Your task to perform on an android device: turn on sleep mode Image 0: 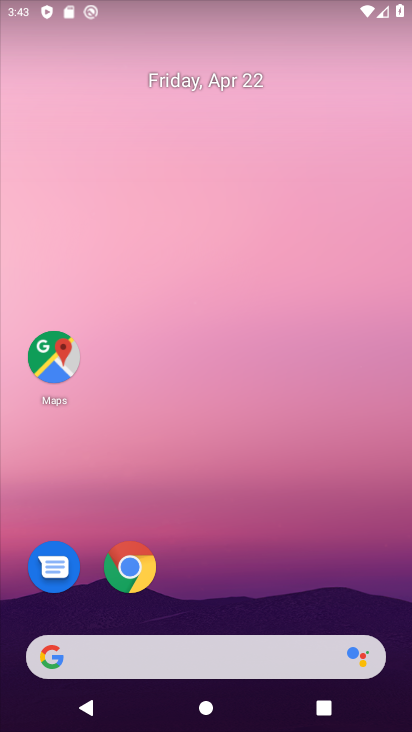
Step 0: drag from (215, 581) to (197, 328)
Your task to perform on an android device: turn on sleep mode Image 1: 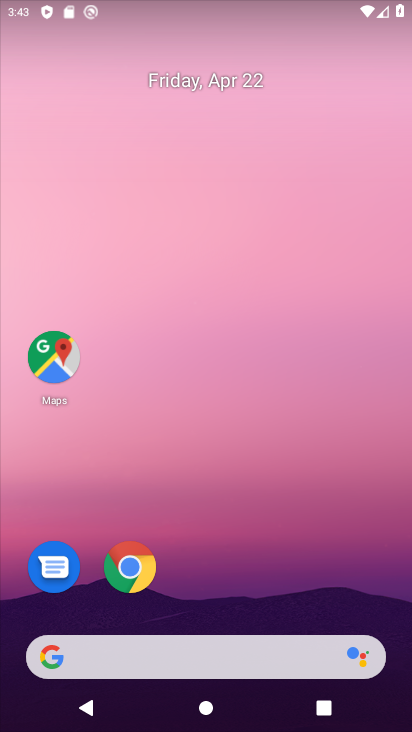
Step 1: drag from (245, 598) to (224, 463)
Your task to perform on an android device: turn on sleep mode Image 2: 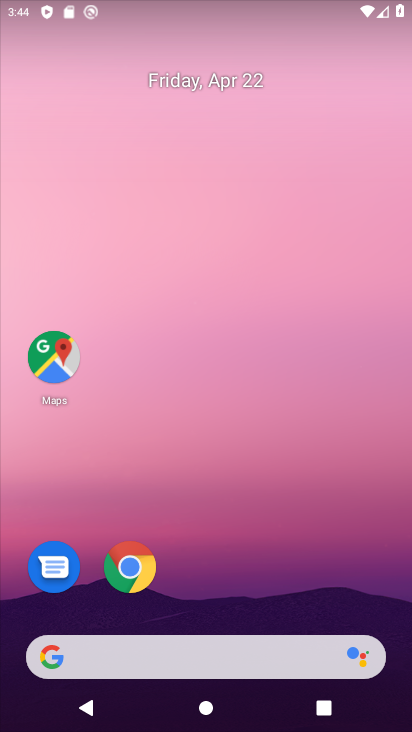
Step 2: drag from (250, 584) to (235, 354)
Your task to perform on an android device: turn on sleep mode Image 3: 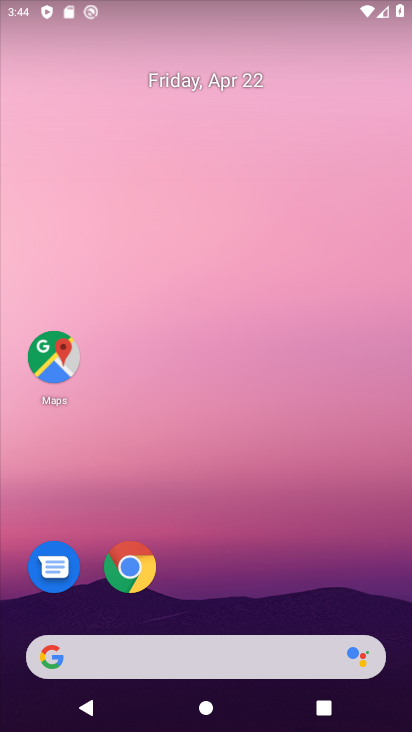
Step 3: drag from (272, 622) to (237, 277)
Your task to perform on an android device: turn on sleep mode Image 4: 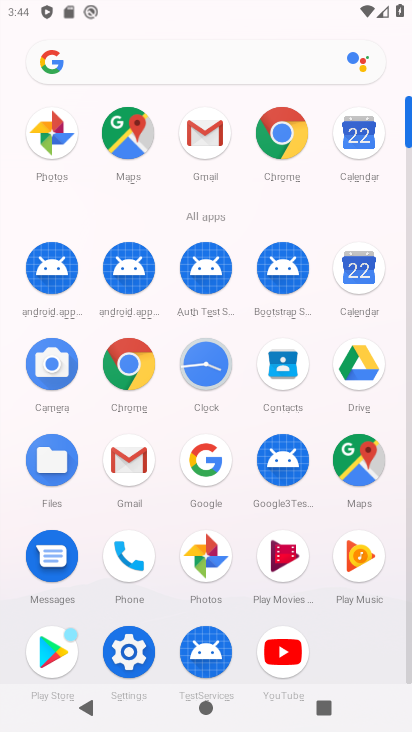
Step 4: click (128, 661)
Your task to perform on an android device: turn on sleep mode Image 5: 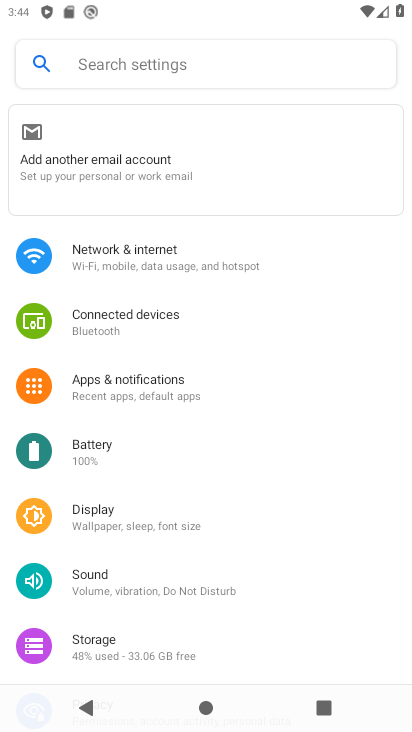
Step 5: click (162, 534)
Your task to perform on an android device: turn on sleep mode Image 6: 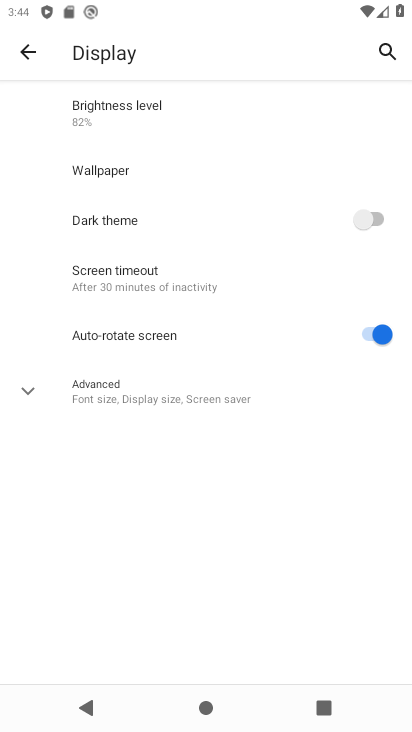
Step 6: click (162, 534)
Your task to perform on an android device: turn on sleep mode Image 7: 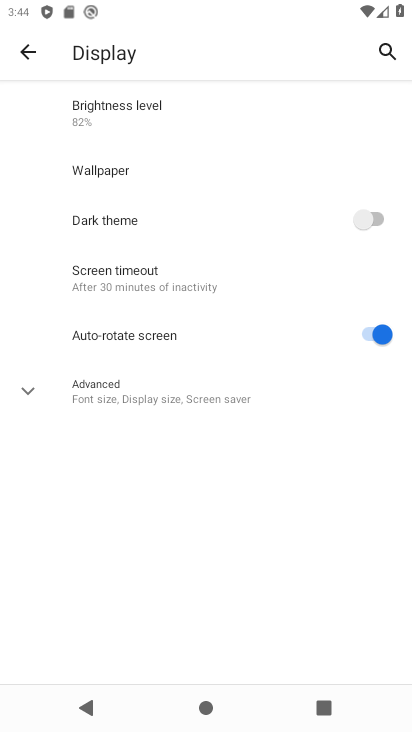
Step 7: click (218, 406)
Your task to perform on an android device: turn on sleep mode Image 8: 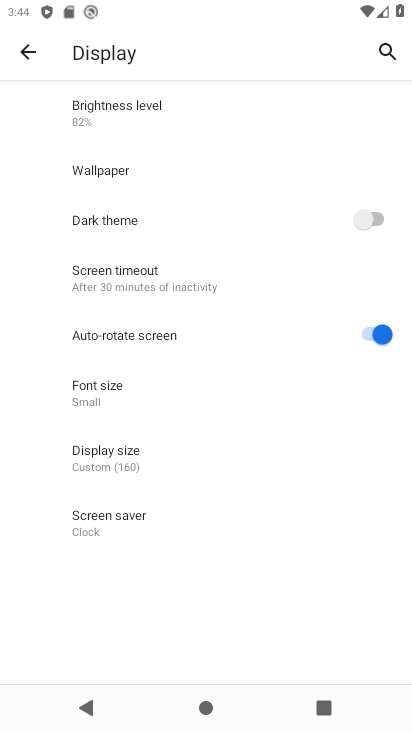
Step 8: task complete